Your task to perform on an android device: Open the phone app and click the voicemail tab. Image 0: 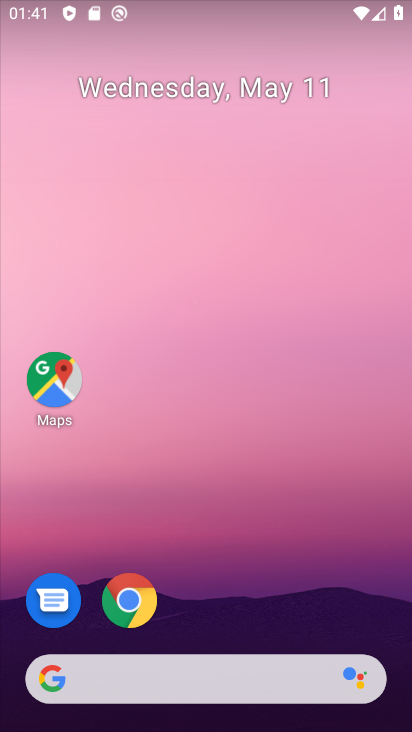
Step 0: drag from (297, 534) to (326, 320)
Your task to perform on an android device: Open the phone app and click the voicemail tab. Image 1: 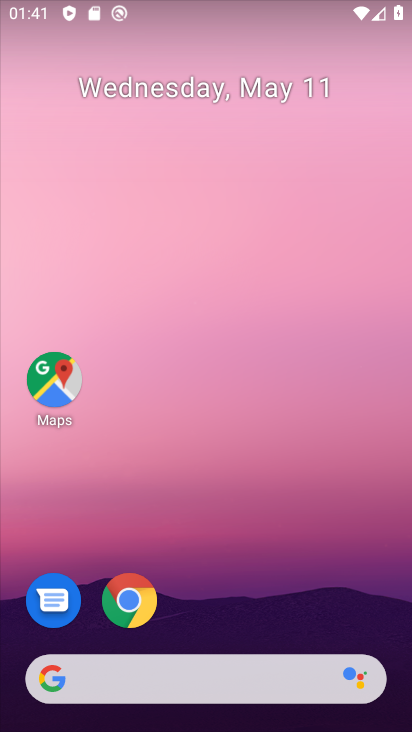
Step 1: drag from (236, 524) to (267, 265)
Your task to perform on an android device: Open the phone app and click the voicemail tab. Image 2: 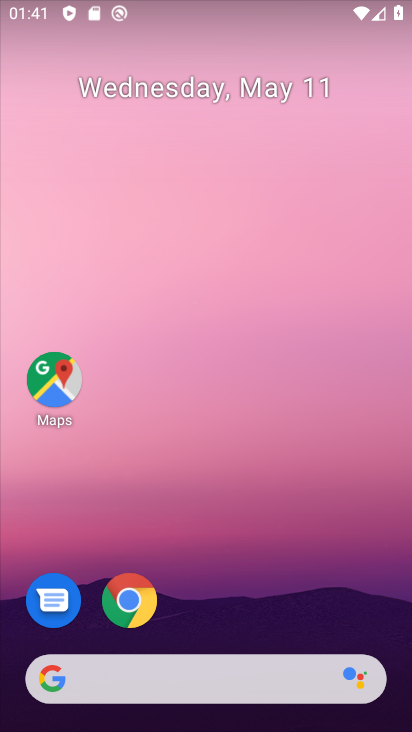
Step 2: drag from (252, 392) to (271, 238)
Your task to perform on an android device: Open the phone app and click the voicemail tab. Image 3: 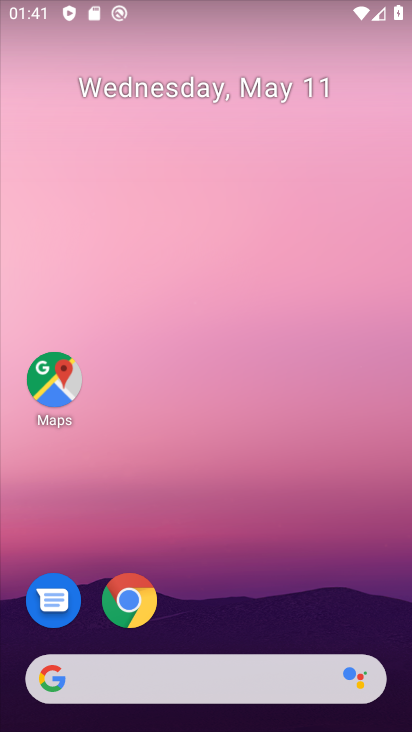
Step 3: drag from (228, 661) to (228, 192)
Your task to perform on an android device: Open the phone app and click the voicemail tab. Image 4: 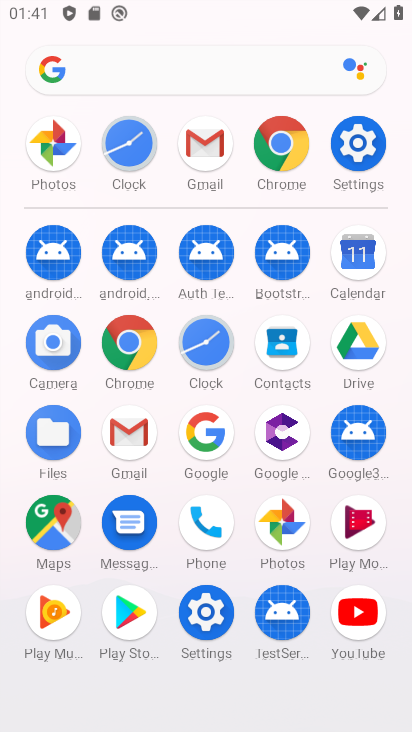
Step 4: click (357, 611)
Your task to perform on an android device: Open the phone app and click the voicemail tab. Image 5: 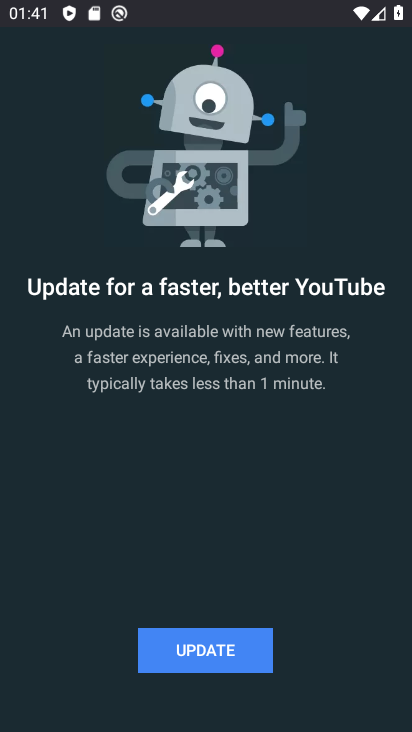
Step 5: press home button
Your task to perform on an android device: Open the phone app and click the voicemail tab. Image 6: 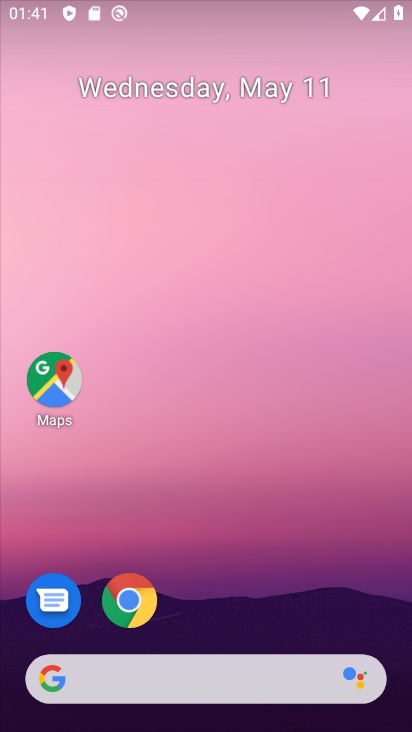
Step 6: drag from (274, 568) to (303, 206)
Your task to perform on an android device: Open the phone app and click the voicemail tab. Image 7: 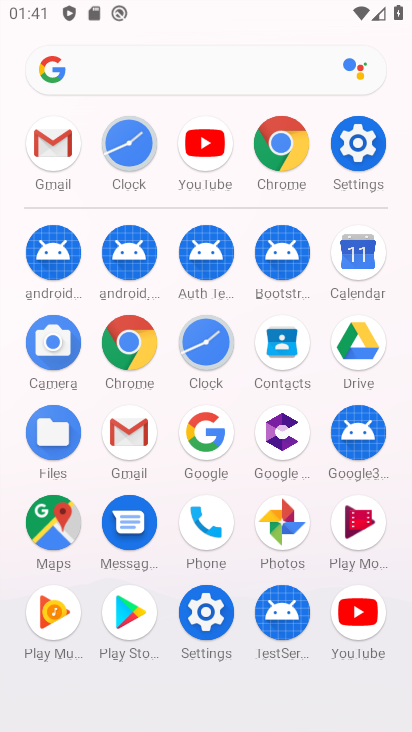
Step 7: click (351, 517)
Your task to perform on an android device: Open the phone app and click the voicemail tab. Image 8: 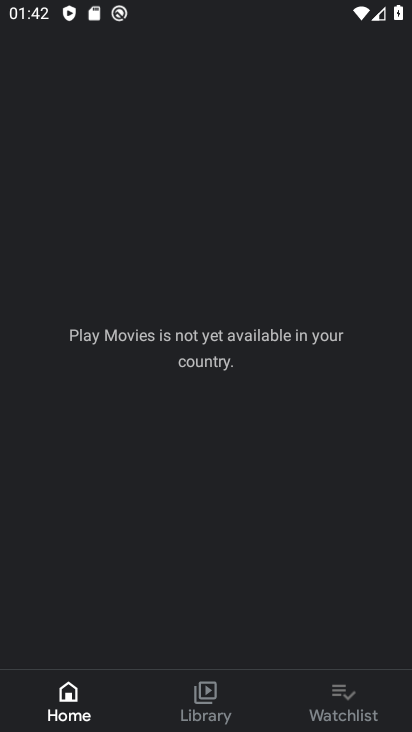
Step 8: click (343, 698)
Your task to perform on an android device: Open the phone app and click the voicemail tab. Image 9: 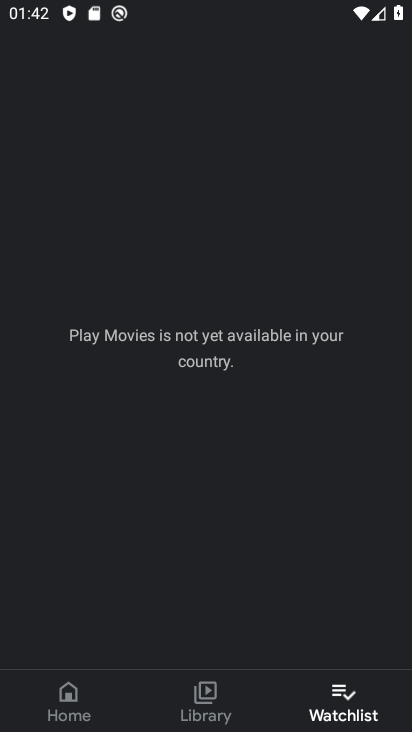
Step 9: press home button
Your task to perform on an android device: Open the phone app and click the voicemail tab. Image 10: 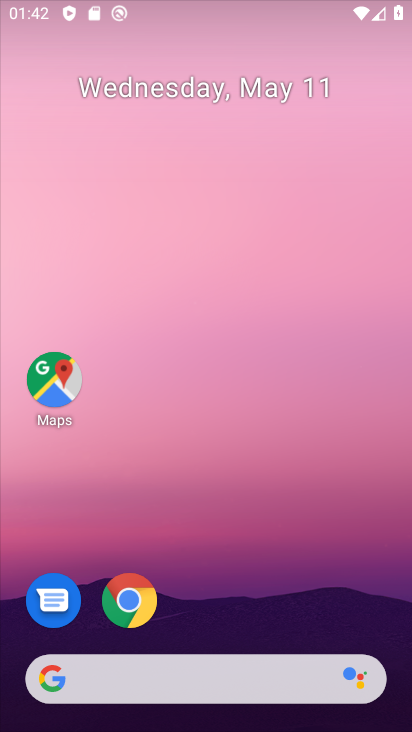
Step 10: drag from (275, 647) to (309, 317)
Your task to perform on an android device: Open the phone app and click the voicemail tab. Image 11: 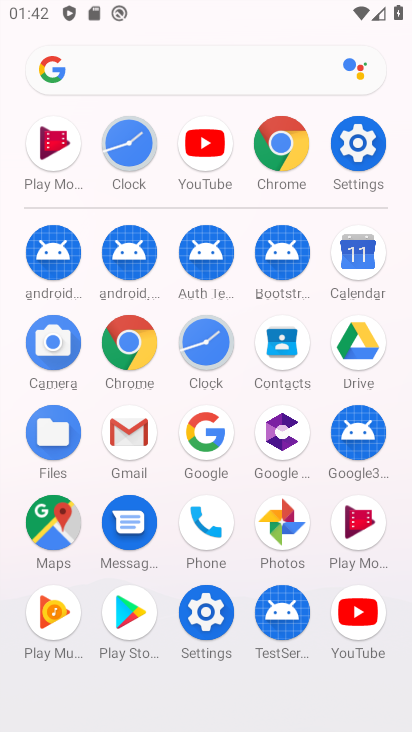
Step 11: click (194, 525)
Your task to perform on an android device: Open the phone app and click the voicemail tab. Image 12: 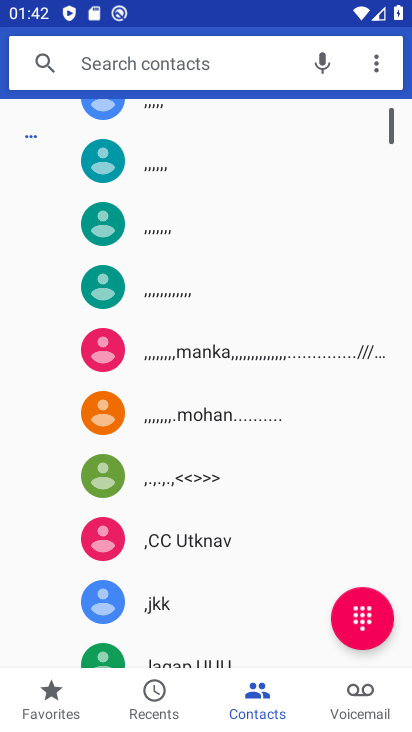
Step 12: click (342, 701)
Your task to perform on an android device: Open the phone app and click the voicemail tab. Image 13: 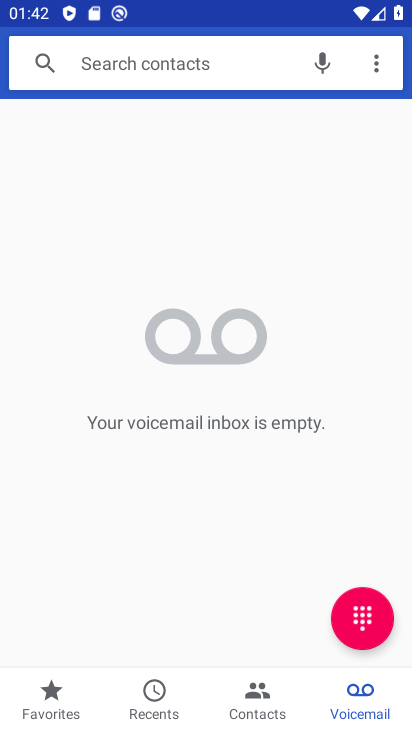
Step 13: task complete